Your task to perform on an android device: install app "ZOOM Cloud Meetings" Image 0: 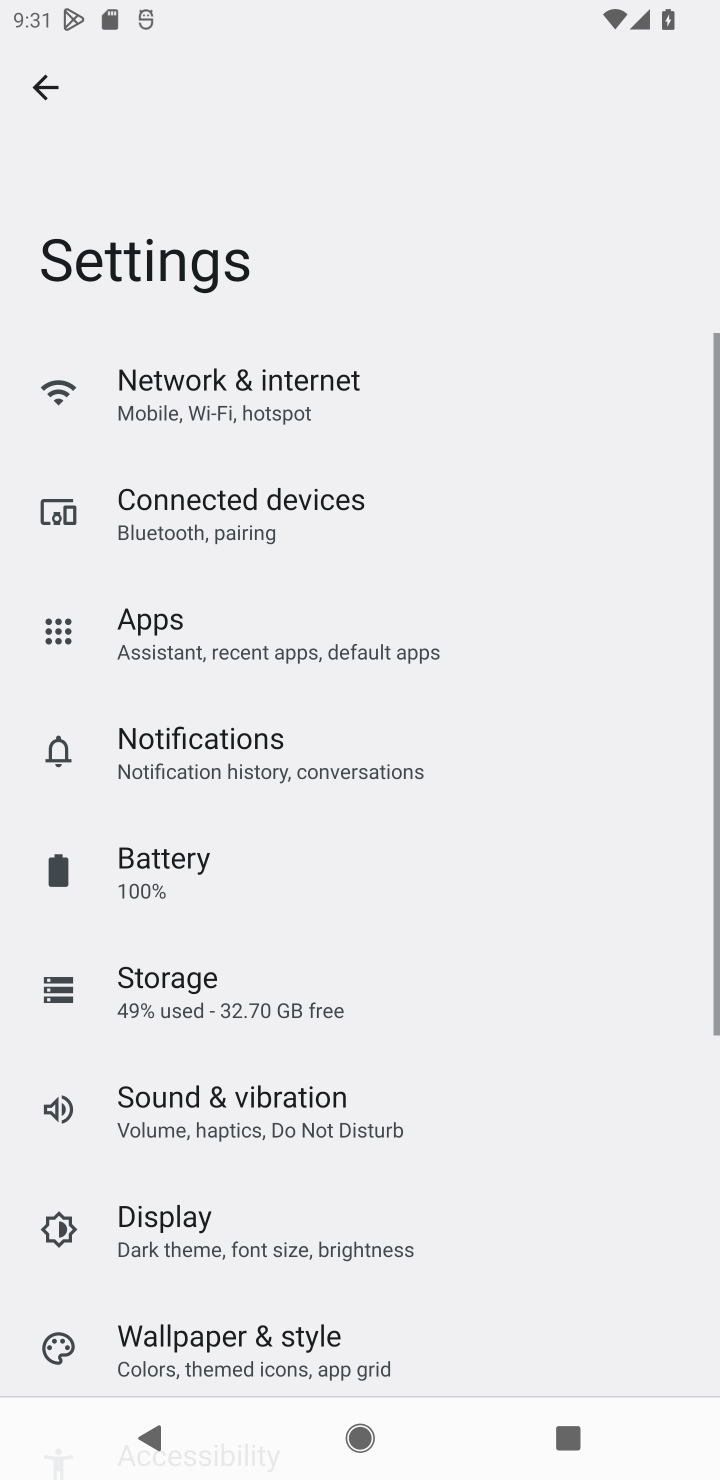
Step 0: press home button
Your task to perform on an android device: install app "ZOOM Cloud Meetings" Image 1: 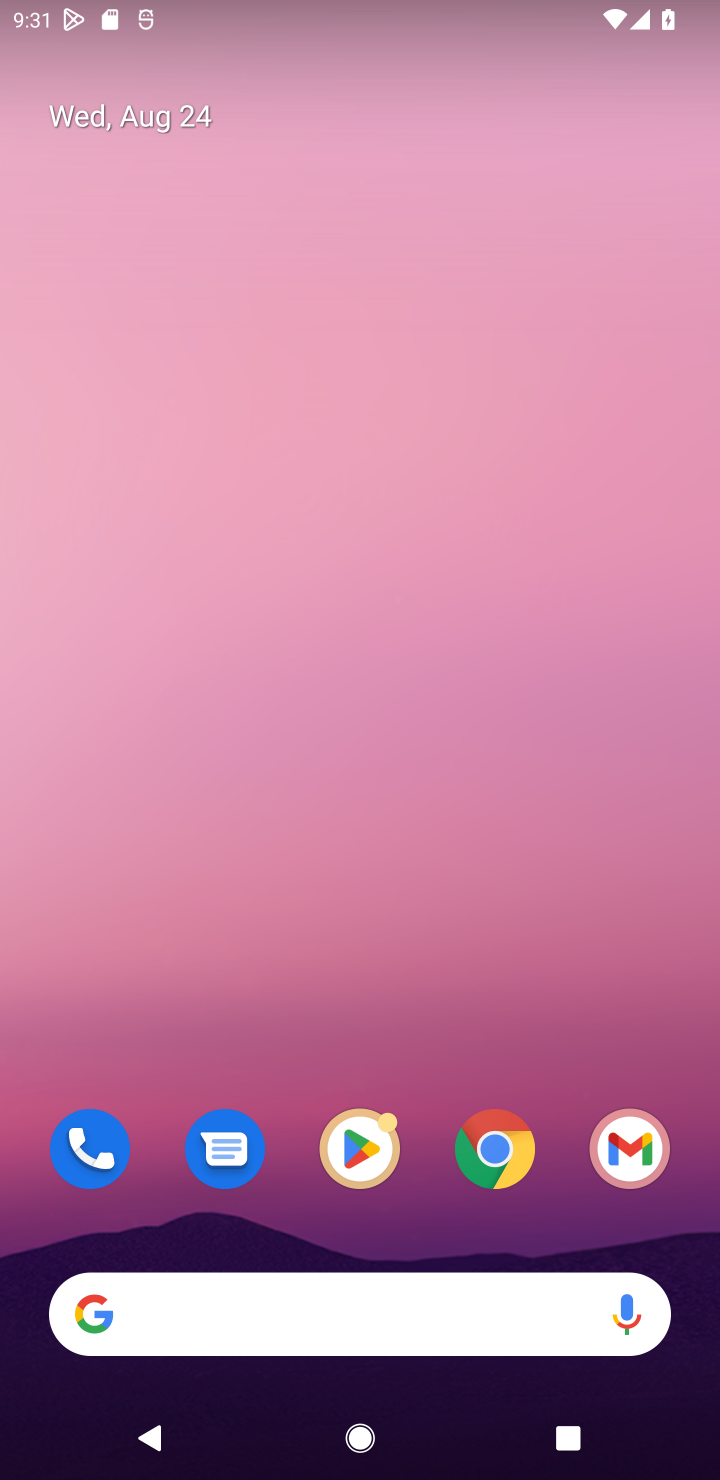
Step 1: drag from (291, 1375) to (400, 235)
Your task to perform on an android device: install app "ZOOM Cloud Meetings" Image 2: 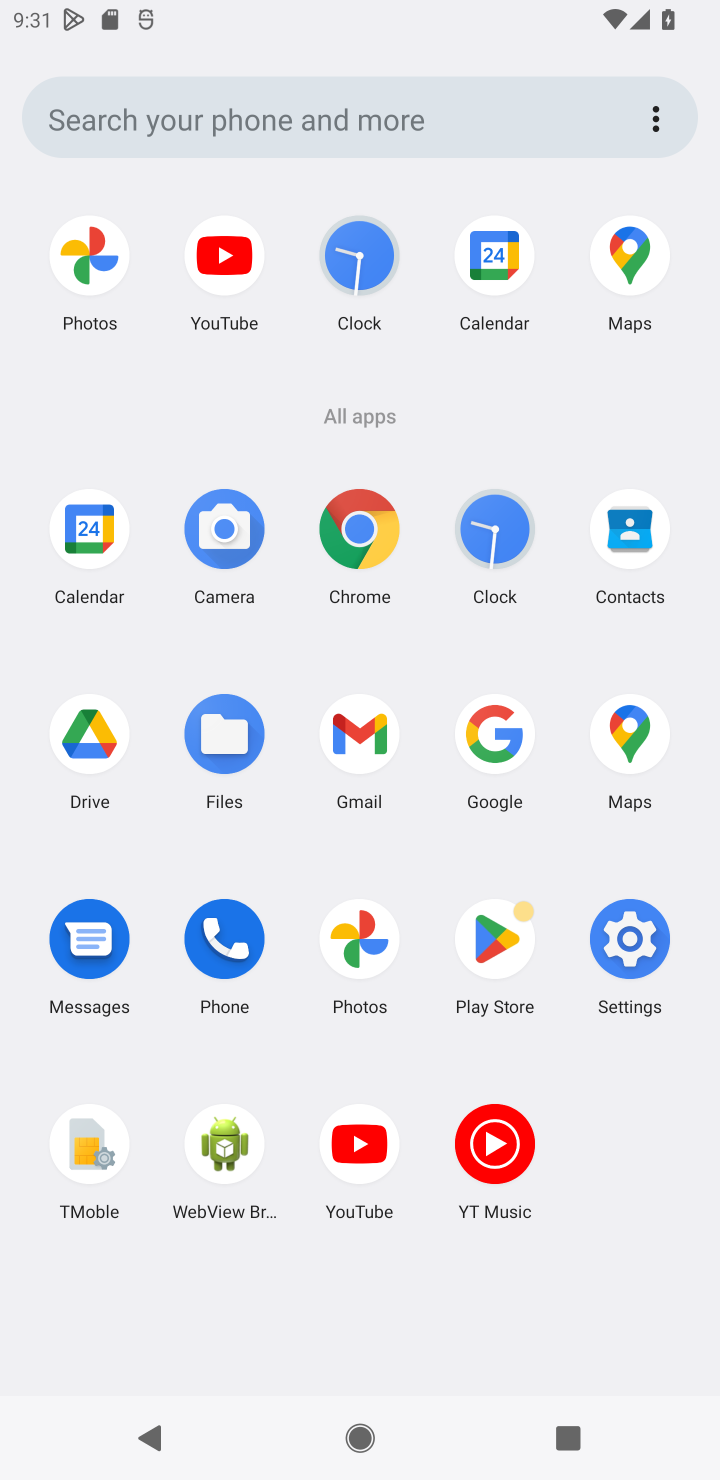
Step 2: click (479, 949)
Your task to perform on an android device: install app "ZOOM Cloud Meetings" Image 3: 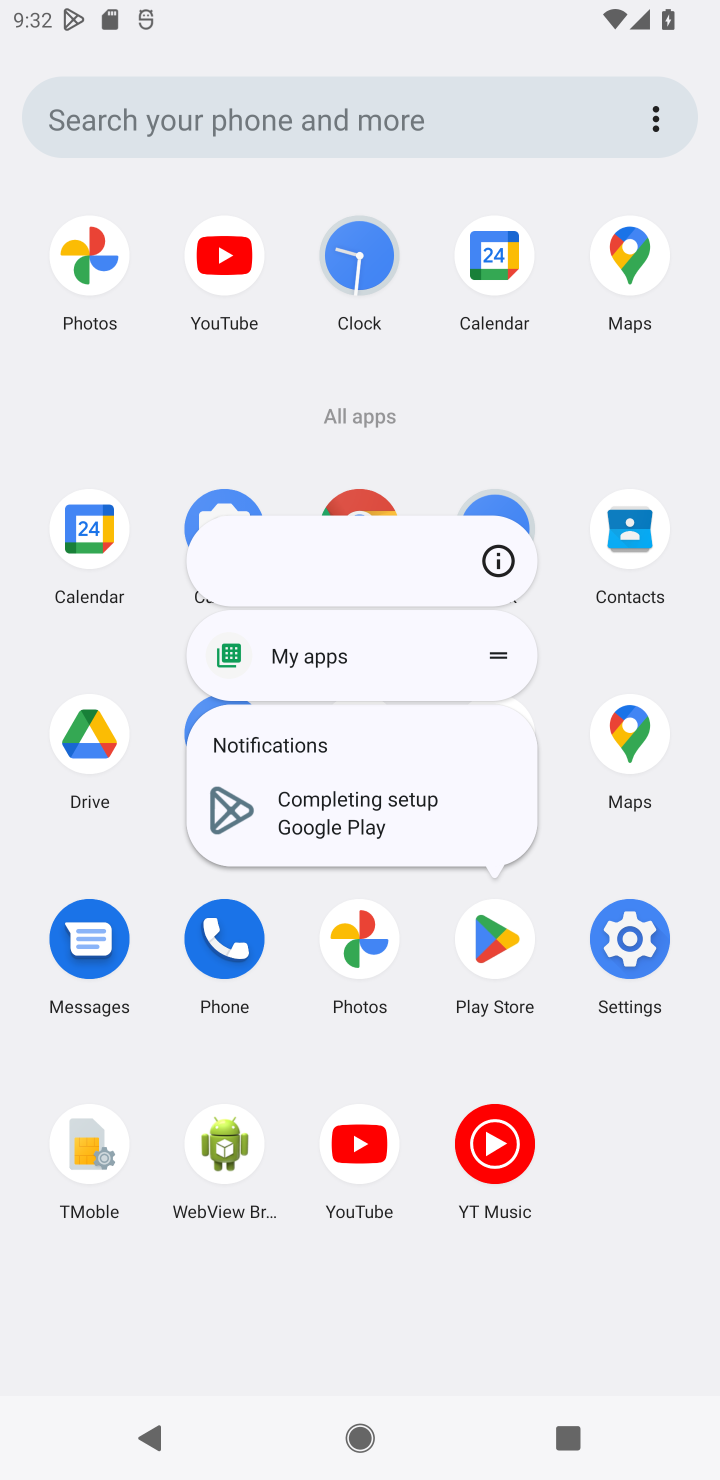
Step 3: click (517, 967)
Your task to perform on an android device: install app "ZOOM Cloud Meetings" Image 4: 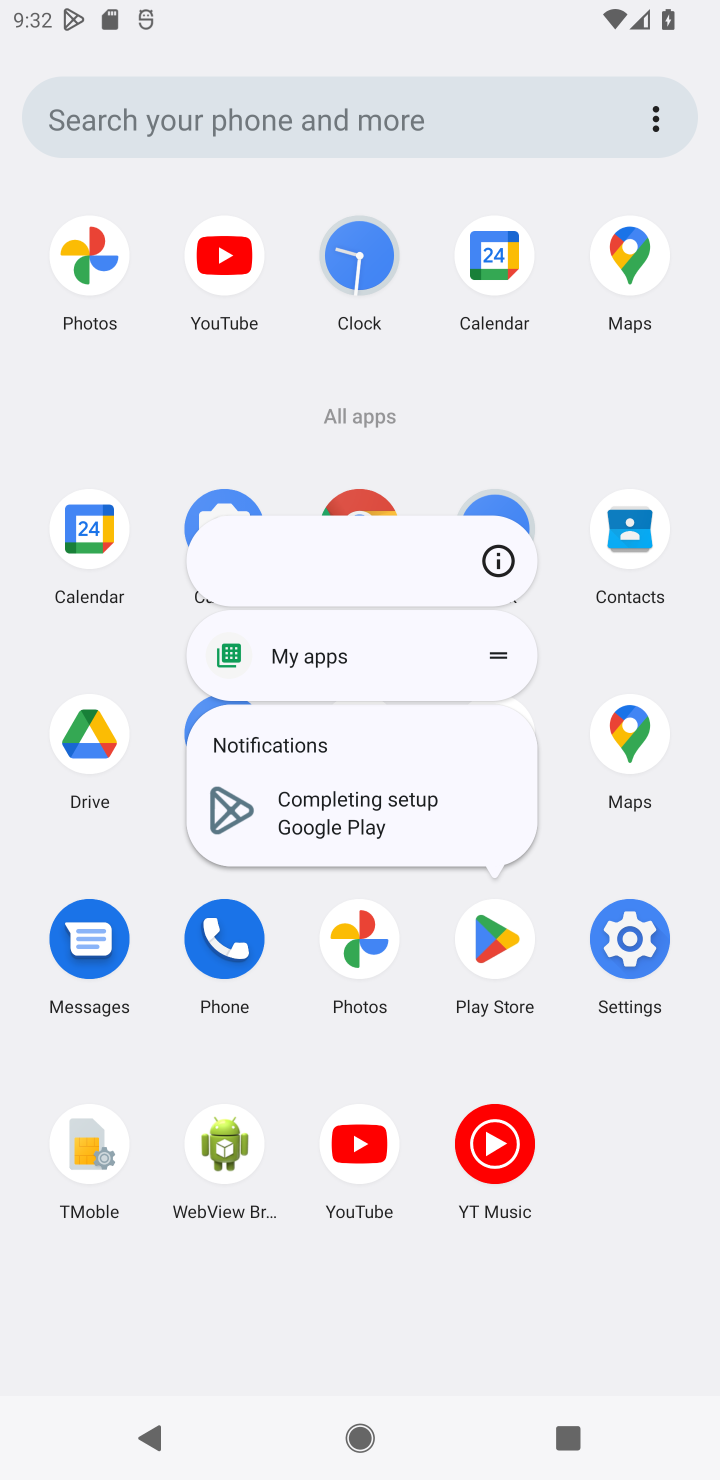
Step 4: click (501, 950)
Your task to perform on an android device: install app "ZOOM Cloud Meetings" Image 5: 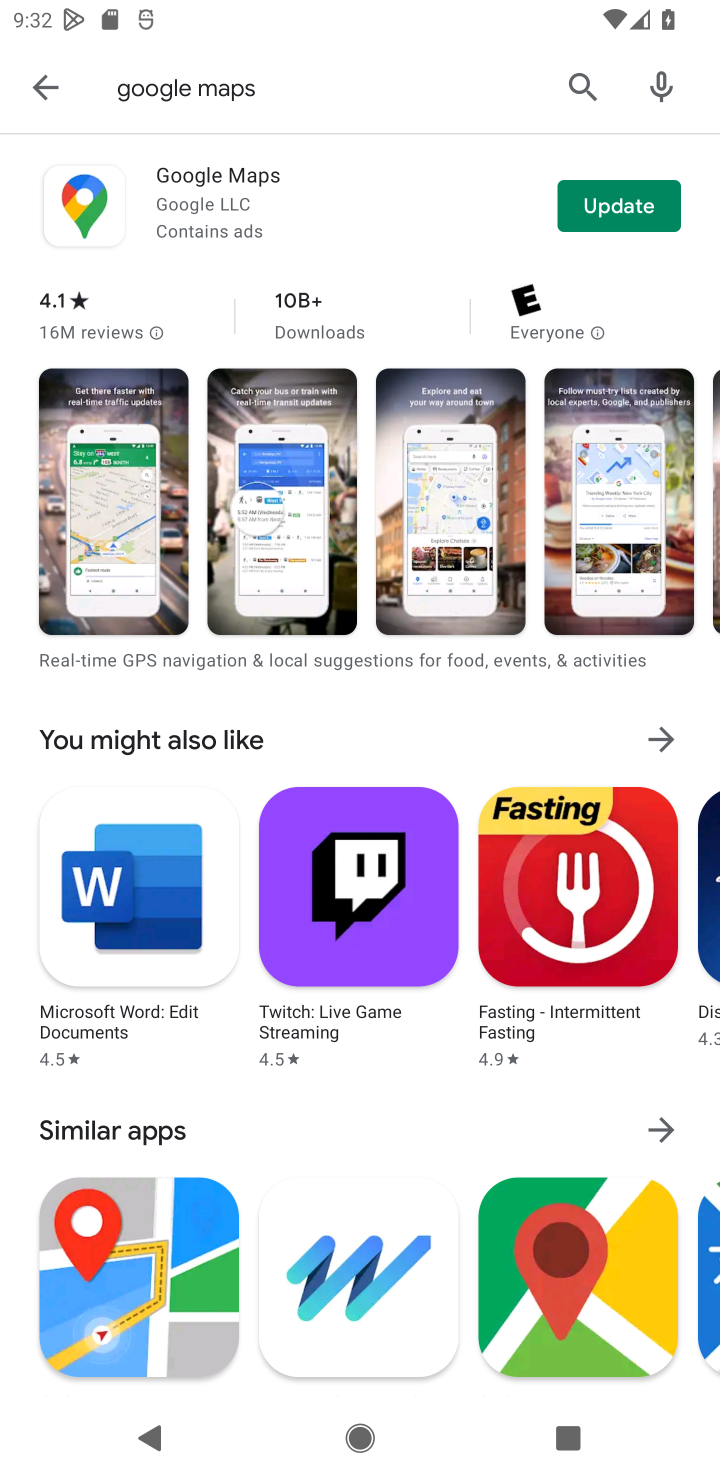
Step 5: press back button
Your task to perform on an android device: install app "ZOOM Cloud Meetings" Image 6: 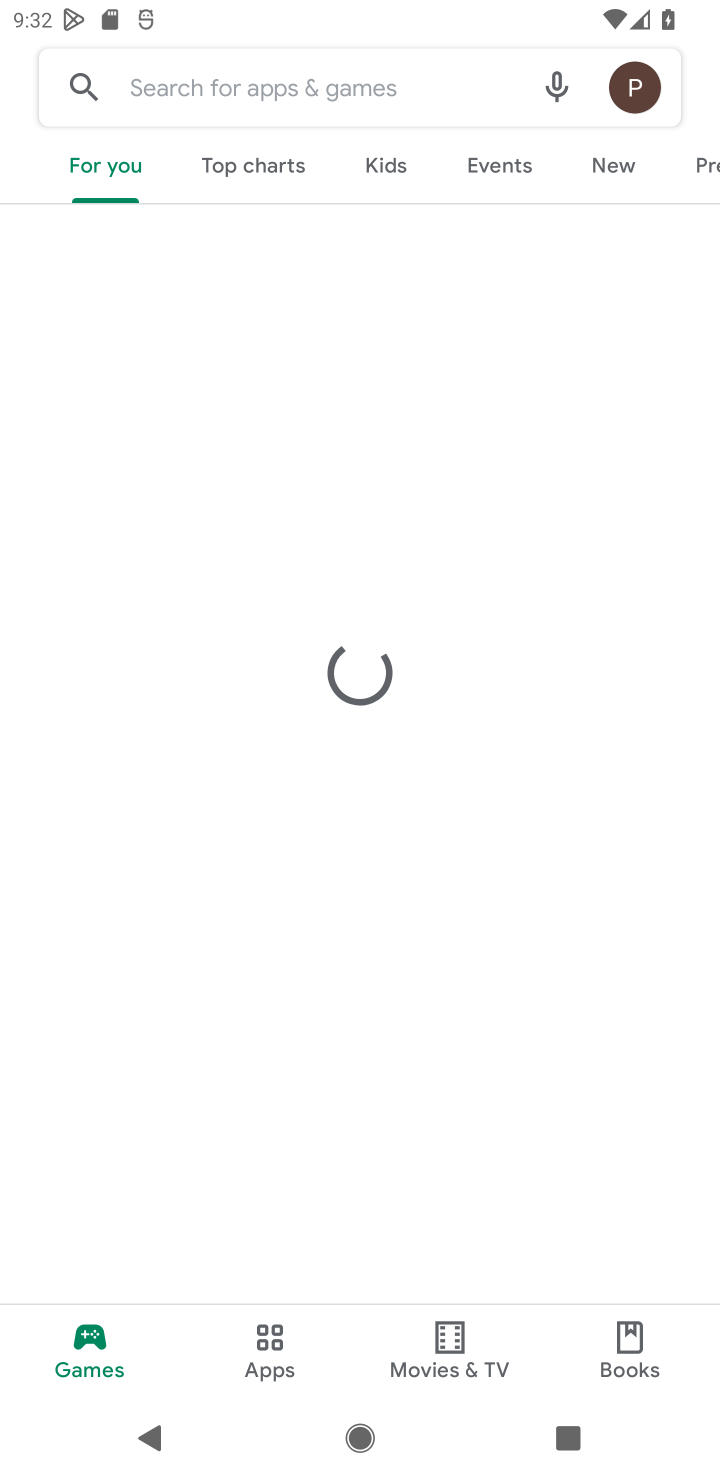
Step 6: click (288, 104)
Your task to perform on an android device: install app "ZOOM Cloud Meetings" Image 7: 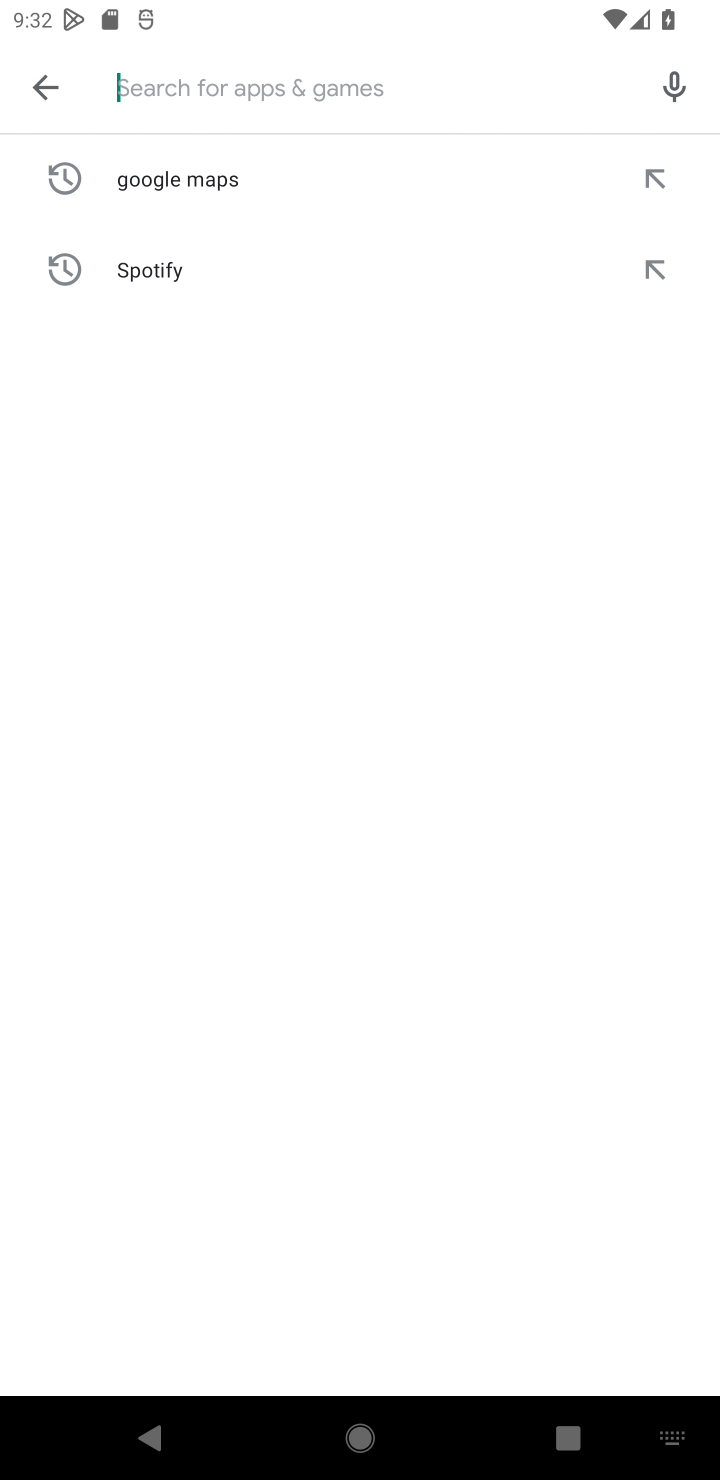
Step 7: type "ZOOM Cloud Meetings"
Your task to perform on an android device: install app "ZOOM Cloud Meetings" Image 8: 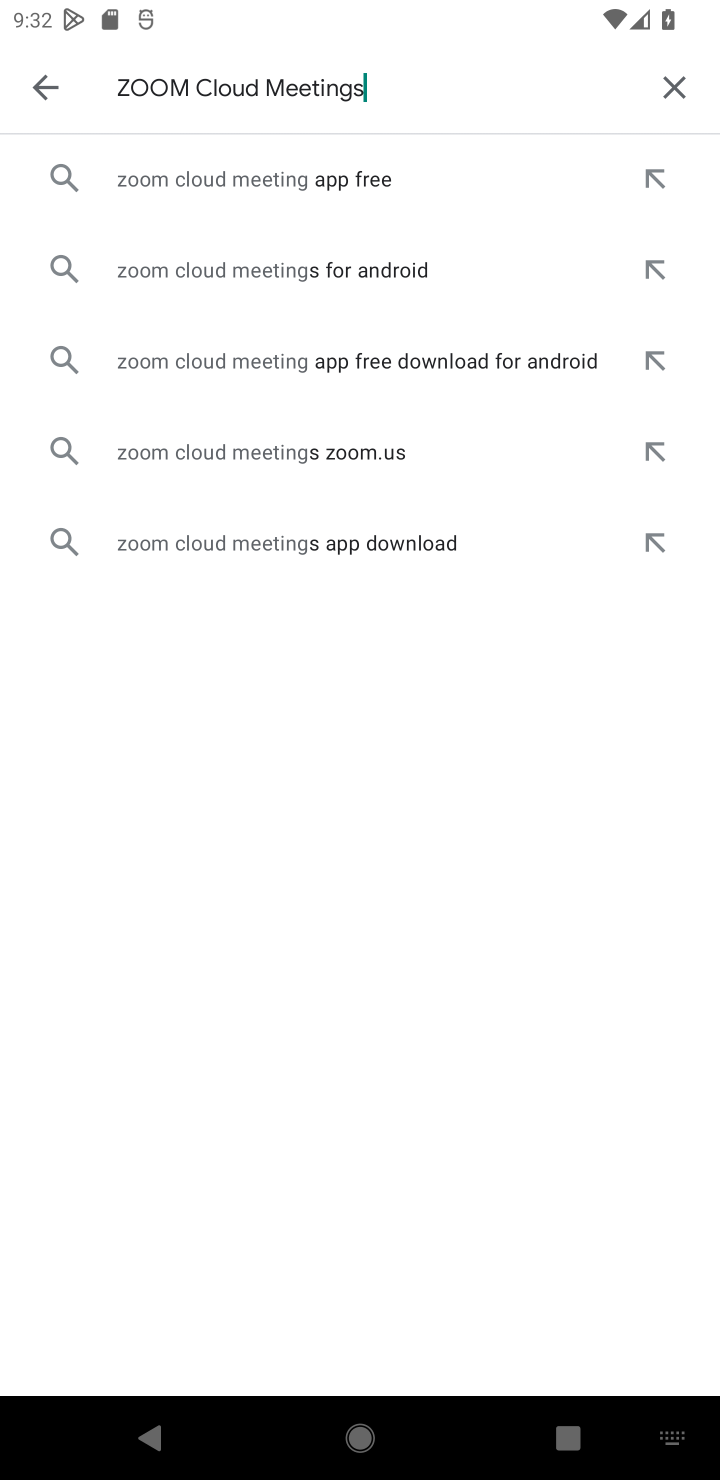
Step 8: press enter
Your task to perform on an android device: install app "ZOOM Cloud Meetings" Image 9: 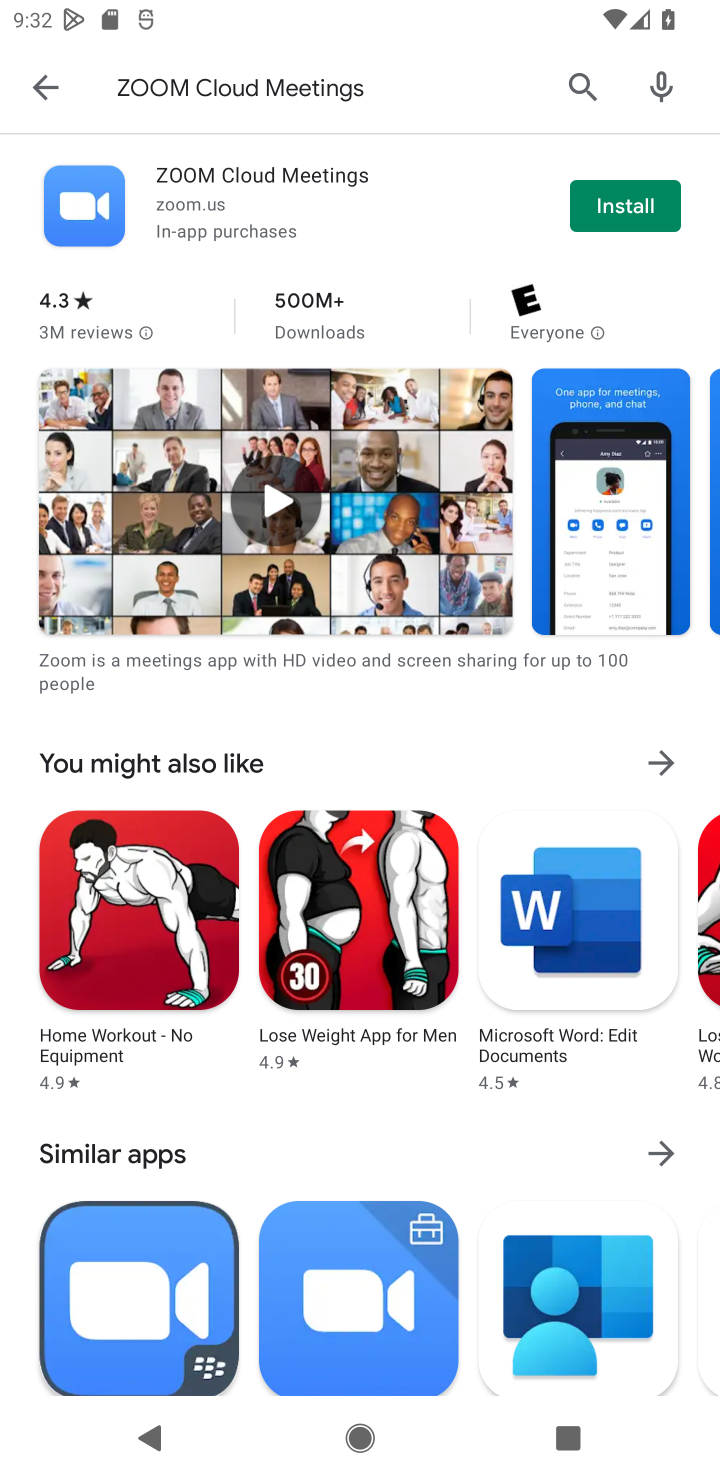
Step 9: click (659, 210)
Your task to perform on an android device: install app "ZOOM Cloud Meetings" Image 10: 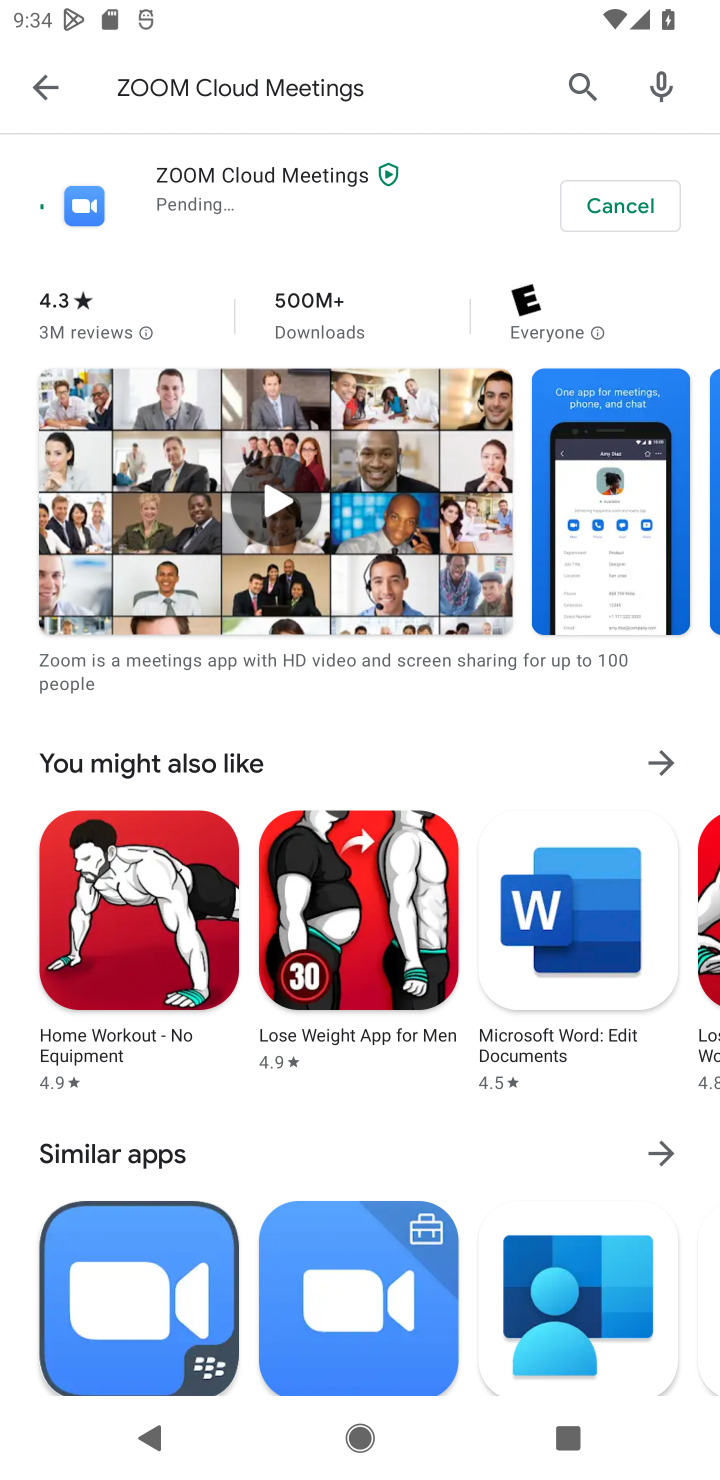
Step 10: task complete